Your task to perform on an android device: visit the assistant section in the google photos Image 0: 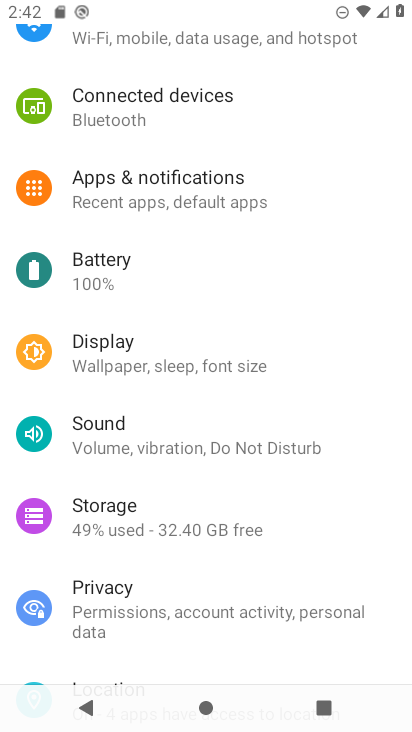
Step 0: press home button
Your task to perform on an android device: visit the assistant section in the google photos Image 1: 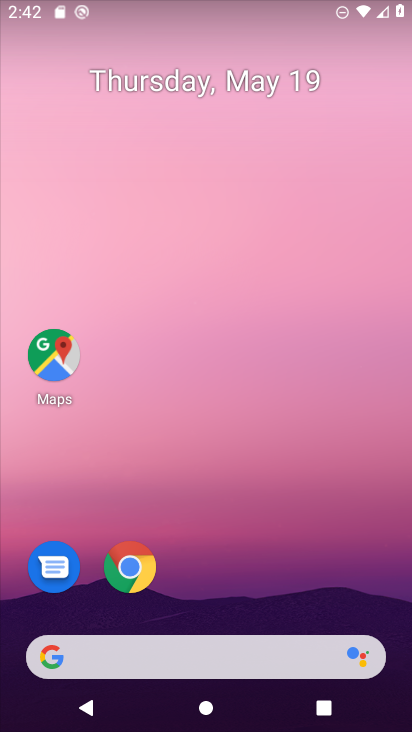
Step 1: drag from (212, 546) to (212, 46)
Your task to perform on an android device: visit the assistant section in the google photos Image 2: 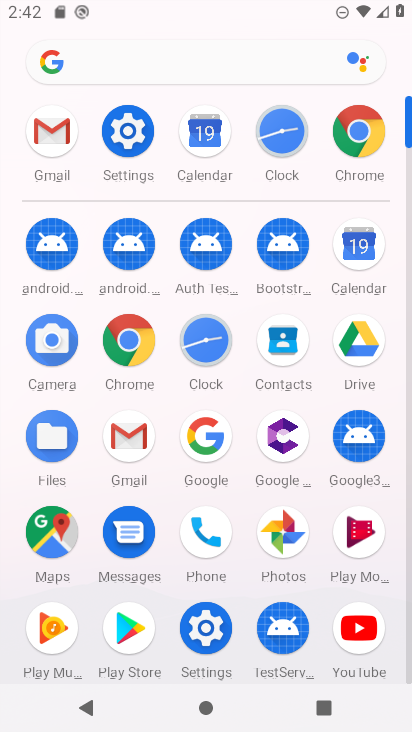
Step 2: click (281, 525)
Your task to perform on an android device: visit the assistant section in the google photos Image 3: 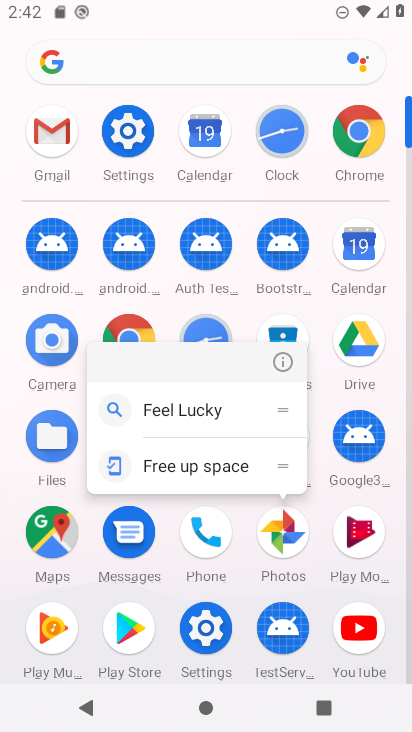
Step 3: click (281, 525)
Your task to perform on an android device: visit the assistant section in the google photos Image 4: 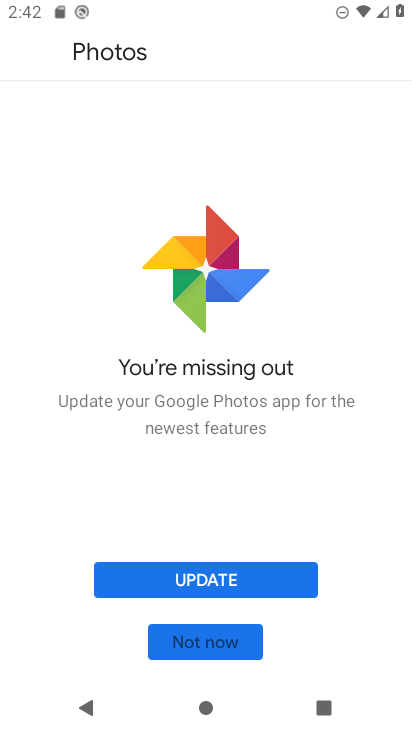
Step 4: click (245, 636)
Your task to perform on an android device: visit the assistant section in the google photos Image 5: 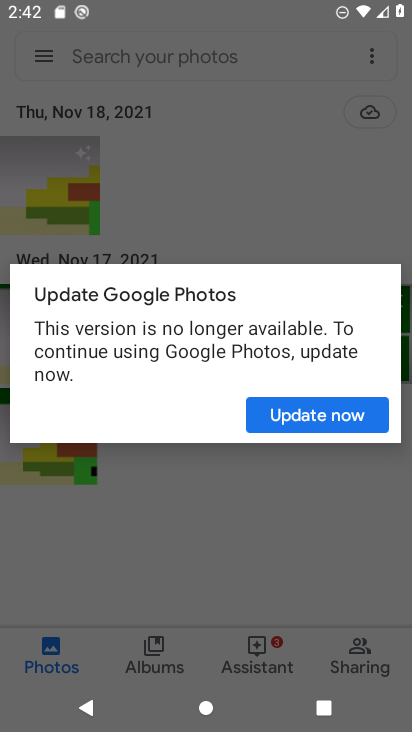
Step 5: click (367, 419)
Your task to perform on an android device: visit the assistant section in the google photos Image 6: 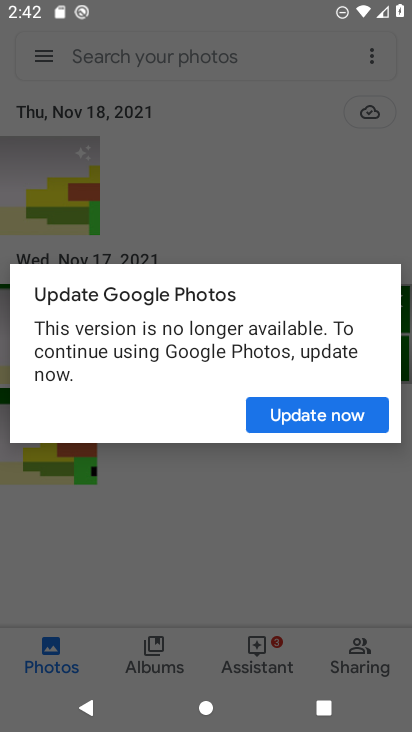
Step 6: click (351, 417)
Your task to perform on an android device: visit the assistant section in the google photos Image 7: 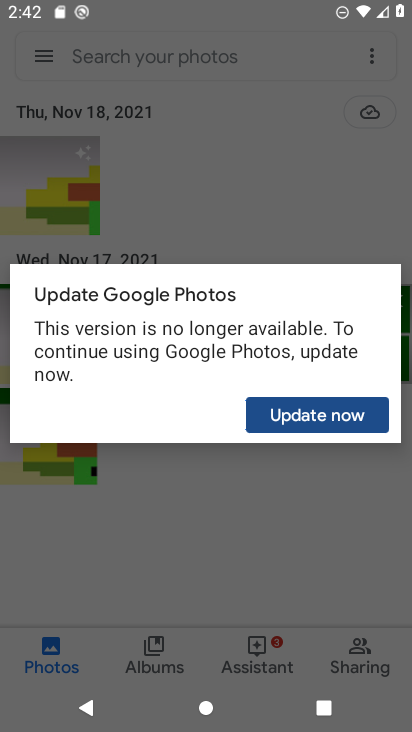
Step 7: click (330, 413)
Your task to perform on an android device: visit the assistant section in the google photos Image 8: 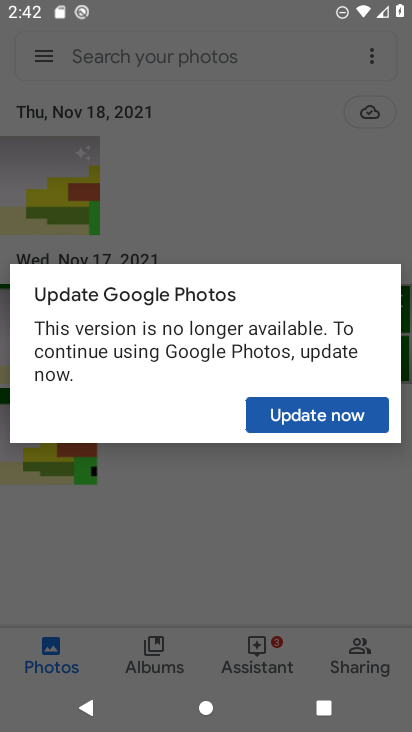
Step 8: click (330, 413)
Your task to perform on an android device: visit the assistant section in the google photos Image 9: 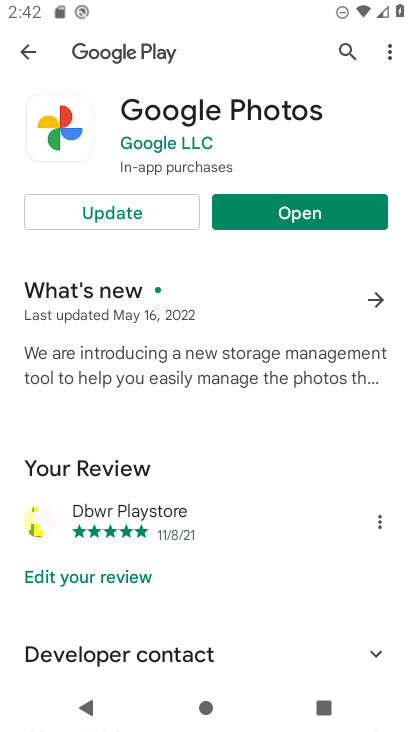
Step 9: click (293, 203)
Your task to perform on an android device: visit the assistant section in the google photos Image 10: 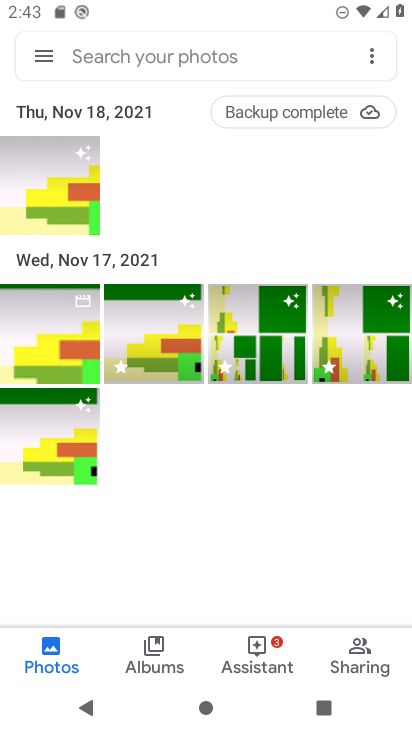
Step 10: click (256, 639)
Your task to perform on an android device: visit the assistant section in the google photos Image 11: 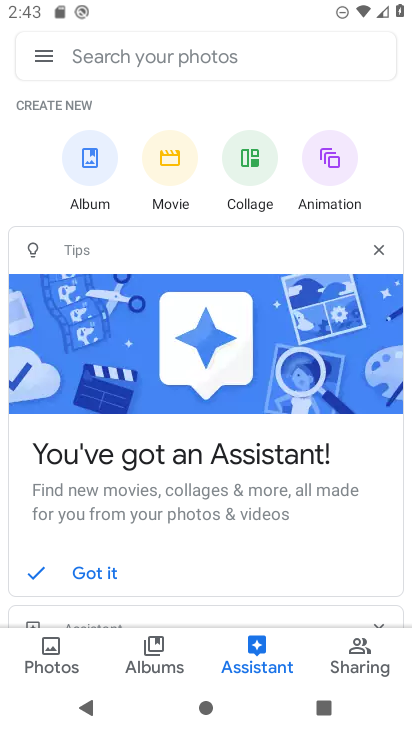
Step 11: task complete